Your task to perform on an android device: toggle notifications settings in the gmail app Image 0: 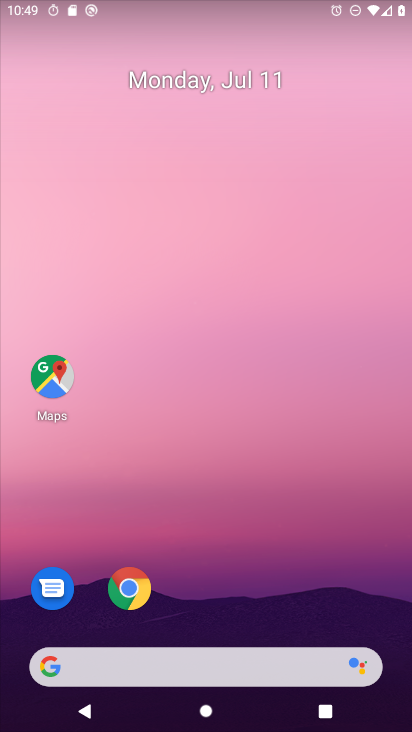
Step 0: drag from (241, 622) to (286, 12)
Your task to perform on an android device: toggle notifications settings in the gmail app Image 1: 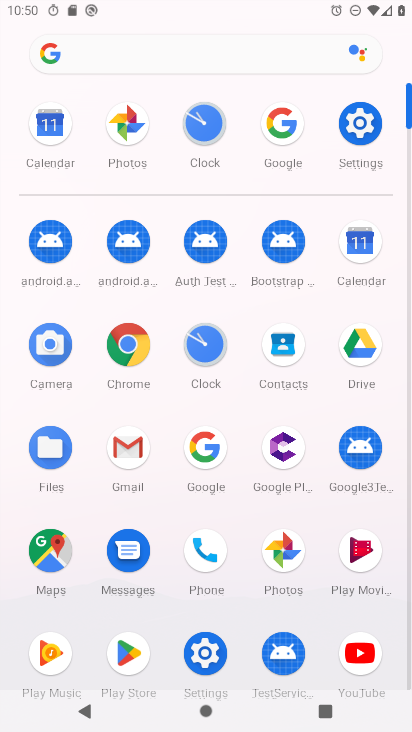
Step 1: click (131, 457)
Your task to perform on an android device: toggle notifications settings in the gmail app Image 2: 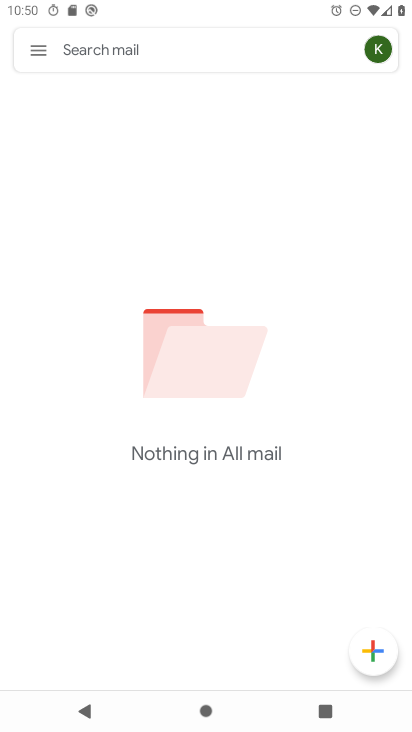
Step 2: click (40, 53)
Your task to perform on an android device: toggle notifications settings in the gmail app Image 3: 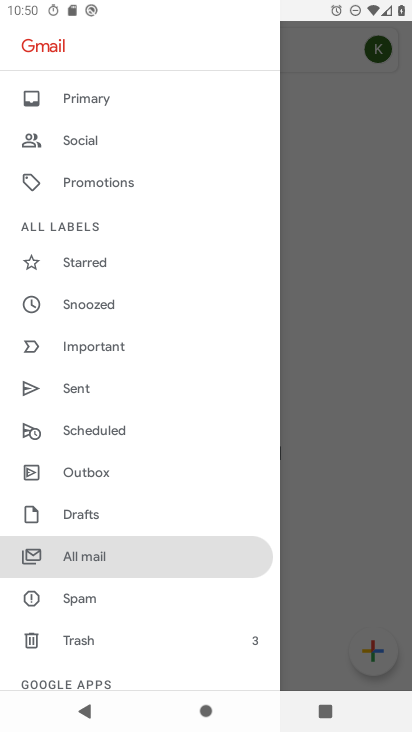
Step 3: drag from (113, 635) to (218, 168)
Your task to perform on an android device: toggle notifications settings in the gmail app Image 4: 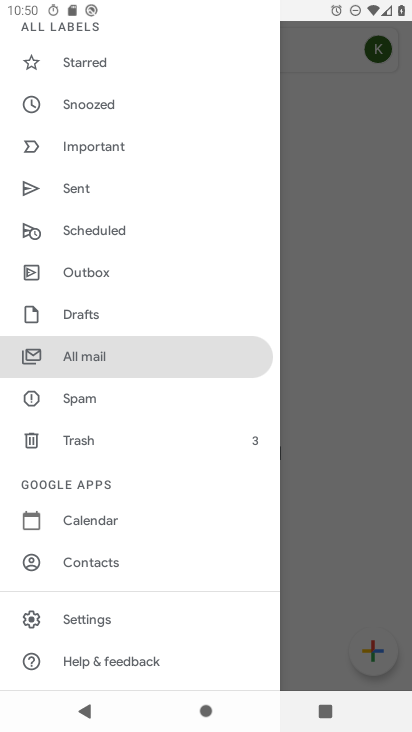
Step 4: click (95, 616)
Your task to perform on an android device: toggle notifications settings in the gmail app Image 5: 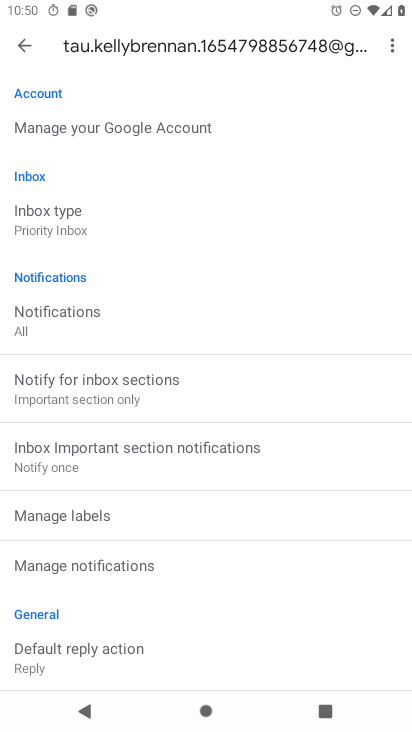
Step 5: click (111, 569)
Your task to perform on an android device: toggle notifications settings in the gmail app Image 6: 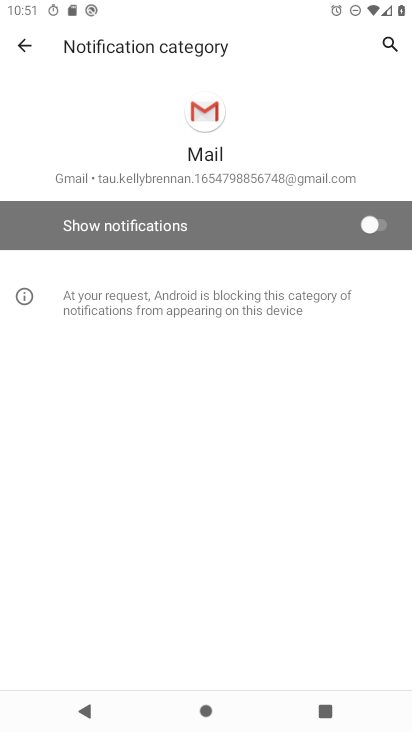
Step 6: click (373, 228)
Your task to perform on an android device: toggle notifications settings in the gmail app Image 7: 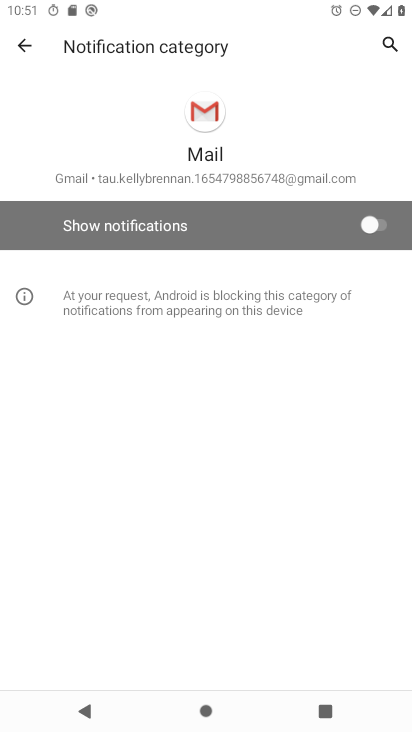
Step 7: task complete